Your task to perform on an android device: read, delete, or share a saved page in the chrome app Image 0: 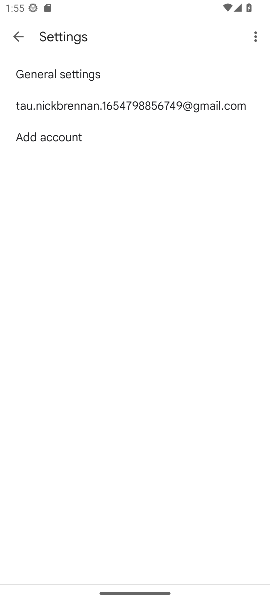
Step 0: press home button
Your task to perform on an android device: read, delete, or share a saved page in the chrome app Image 1: 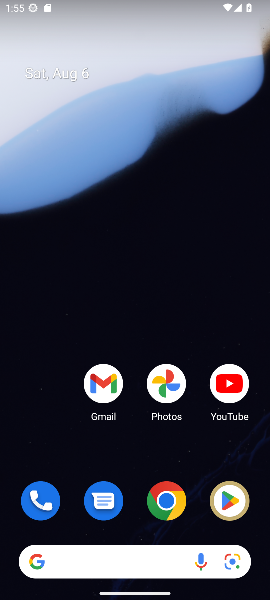
Step 1: click (163, 490)
Your task to perform on an android device: read, delete, or share a saved page in the chrome app Image 2: 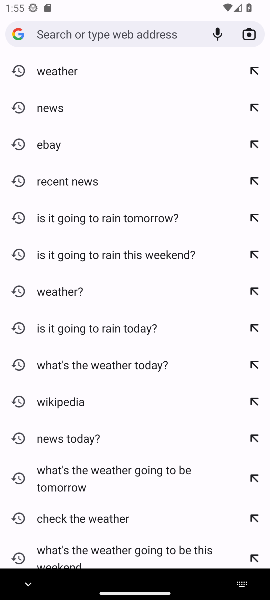
Step 2: press home button
Your task to perform on an android device: read, delete, or share a saved page in the chrome app Image 3: 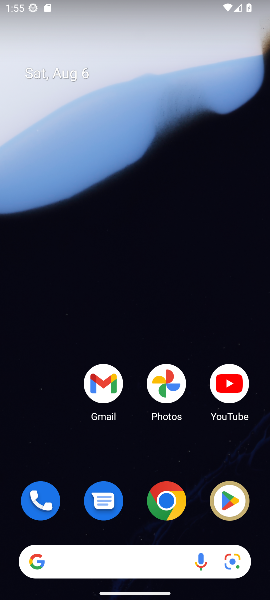
Step 3: click (170, 503)
Your task to perform on an android device: read, delete, or share a saved page in the chrome app Image 4: 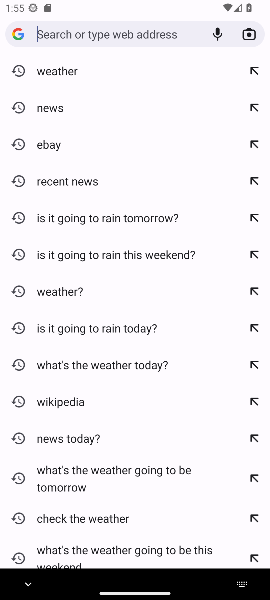
Step 4: press home button
Your task to perform on an android device: read, delete, or share a saved page in the chrome app Image 5: 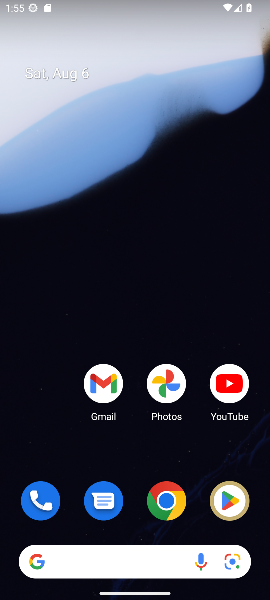
Step 5: drag from (139, 520) to (142, 153)
Your task to perform on an android device: read, delete, or share a saved page in the chrome app Image 6: 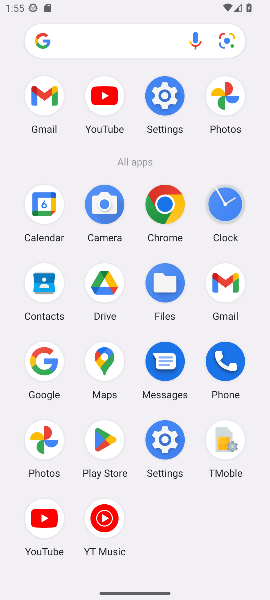
Step 6: click (165, 201)
Your task to perform on an android device: read, delete, or share a saved page in the chrome app Image 7: 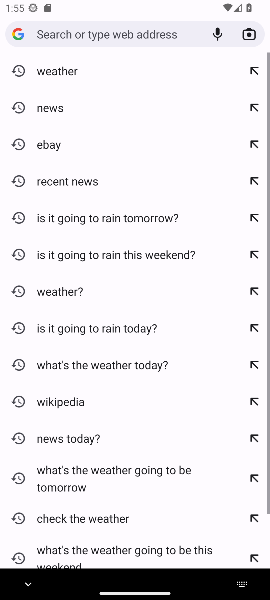
Step 7: click (102, 34)
Your task to perform on an android device: read, delete, or share a saved page in the chrome app Image 8: 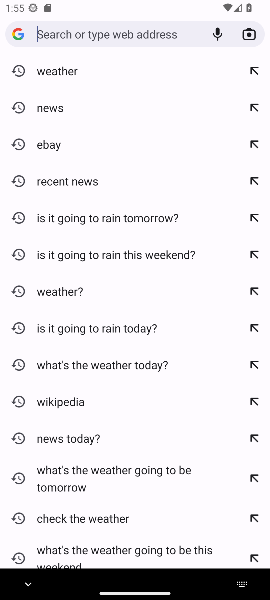
Step 8: click (20, 581)
Your task to perform on an android device: read, delete, or share a saved page in the chrome app Image 9: 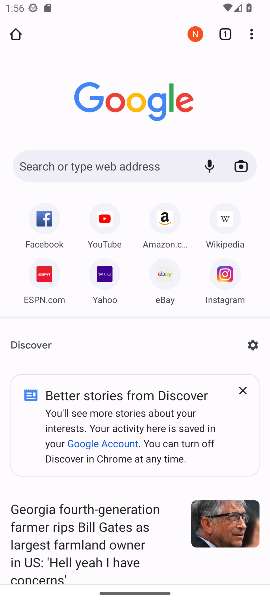
Step 9: drag from (254, 39) to (154, 172)
Your task to perform on an android device: read, delete, or share a saved page in the chrome app Image 10: 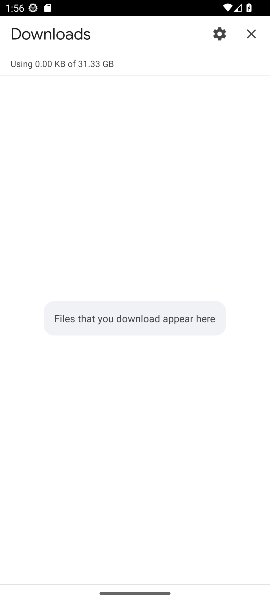
Step 10: click (102, 36)
Your task to perform on an android device: read, delete, or share a saved page in the chrome app Image 11: 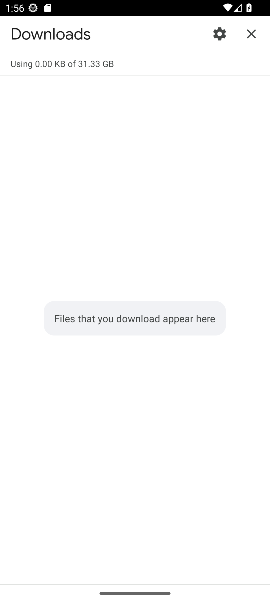
Step 11: task complete